Your task to perform on an android device: Open Google Image 0: 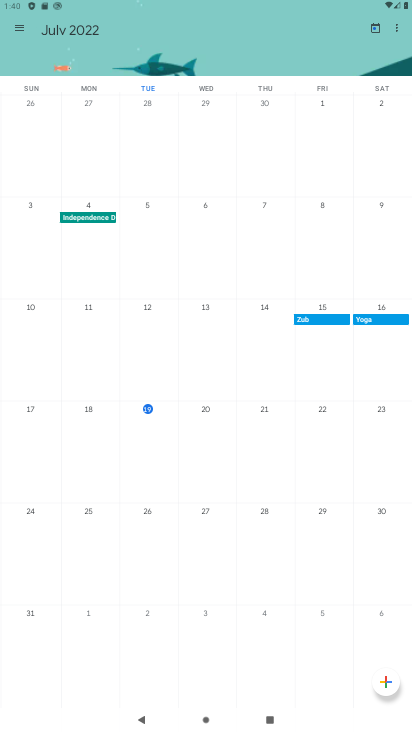
Step 0: press home button
Your task to perform on an android device: Open Google Image 1: 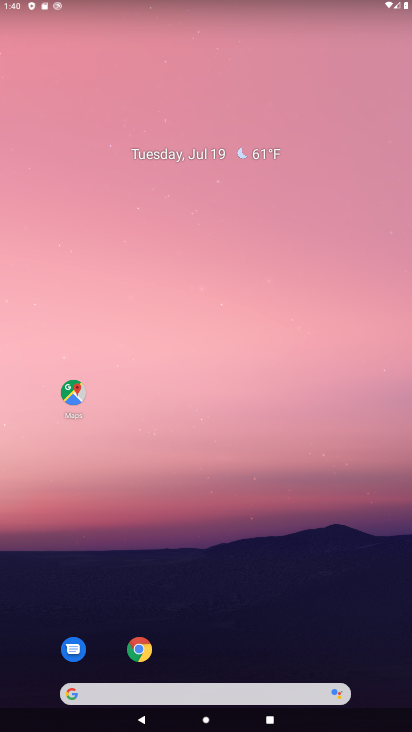
Step 1: drag from (321, 653) to (273, 81)
Your task to perform on an android device: Open Google Image 2: 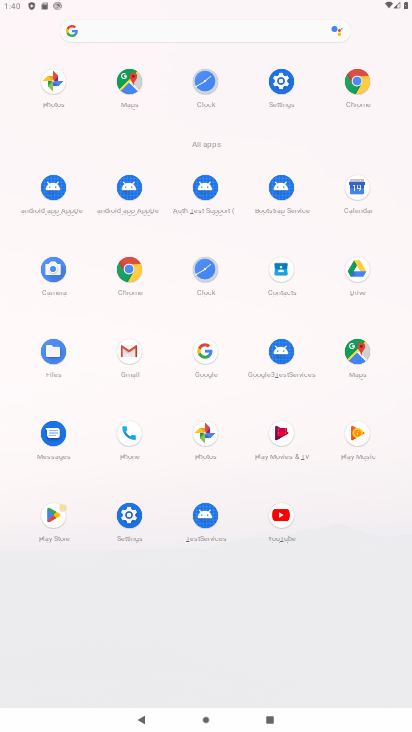
Step 2: click (211, 350)
Your task to perform on an android device: Open Google Image 3: 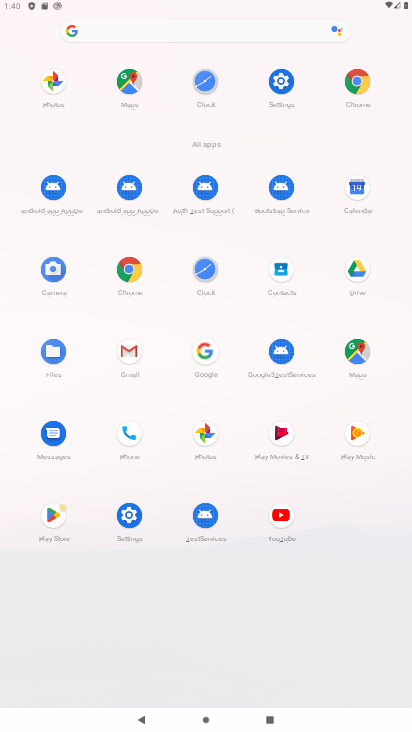
Step 3: click (196, 351)
Your task to perform on an android device: Open Google Image 4: 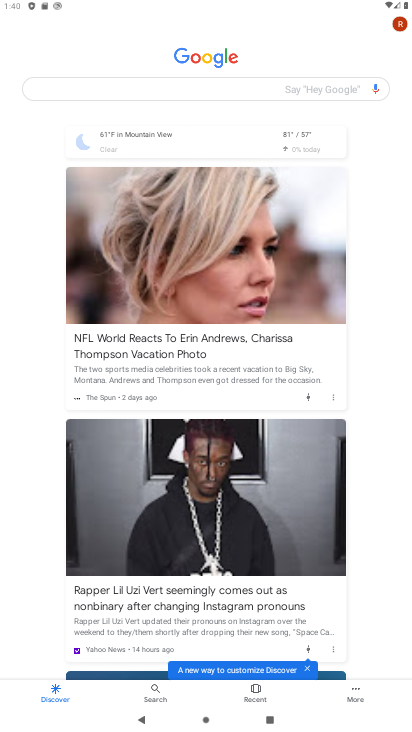
Step 4: task complete